Your task to perform on an android device: Go to Yahoo.com Image 0: 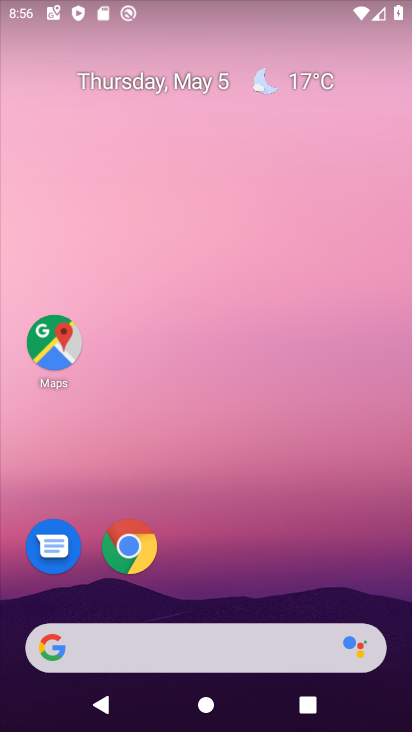
Step 0: drag from (198, 650) to (361, 16)
Your task to perform on an android device: Go to Yahoo.com Image 1: 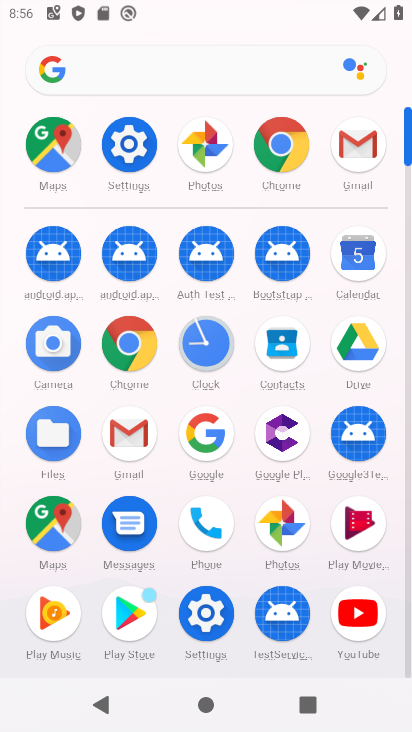
Step 1: click (290, 150)
Your task to perform on an android device: Go to Yahoo.com Image 2: 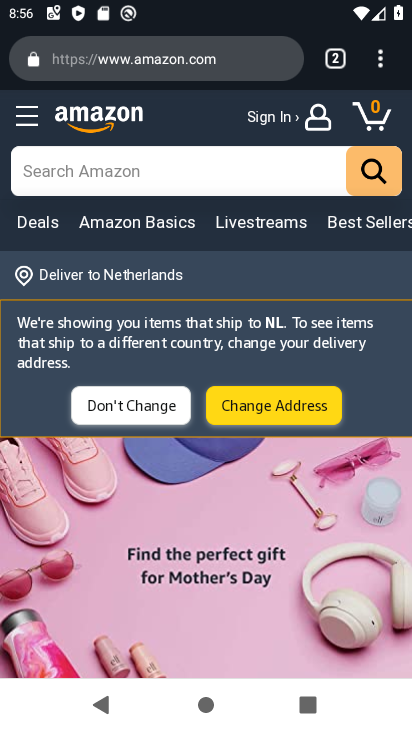
Step 2: drag from (381, 67) to (222, 116)
Your task to perform on an android device: Go to Yahoo.com Image 3: 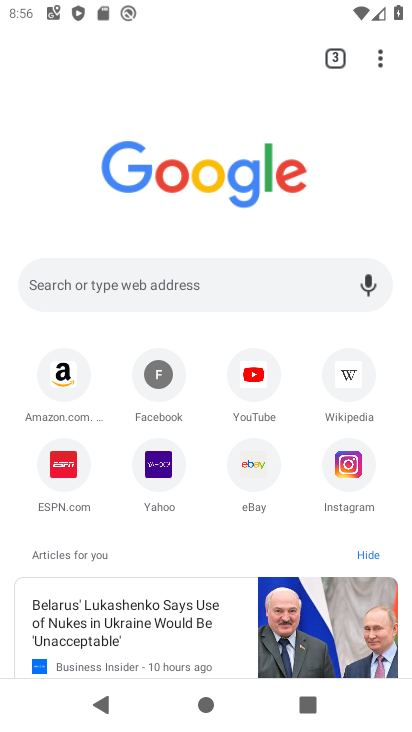
Step 3: click (154, 470)
Your task to perform on an android device: Go to Yahoo.com Image 4: 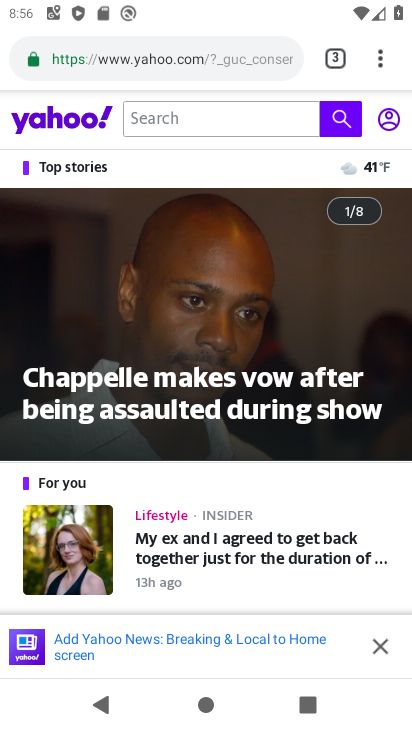
Step 4: task complete